Your task to perform on an android device: open a new tab in the chrome app Image 0: 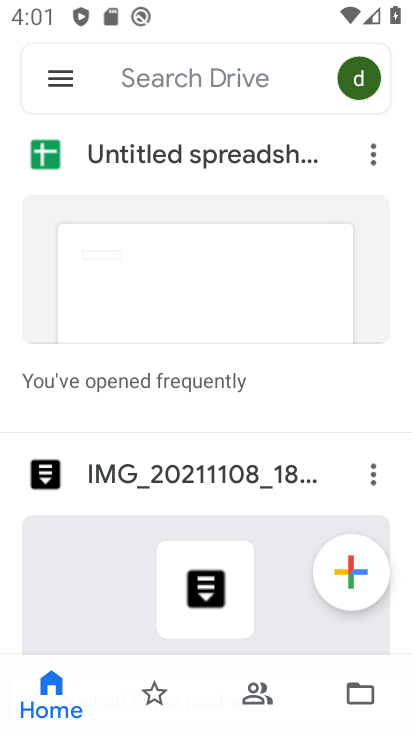
Step 0: press home button
Your task to perform on an android device: open a new tab in the chrome app Image 1: 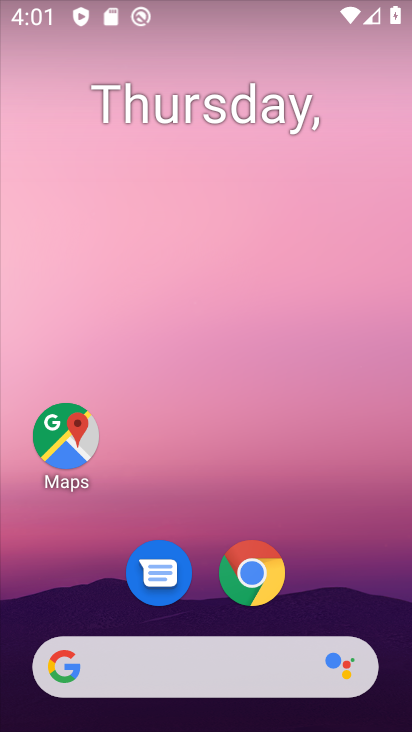
Step 1: click (253, 567)
Your task to perform on an android device: open a new tab in the chrome app Image 2: 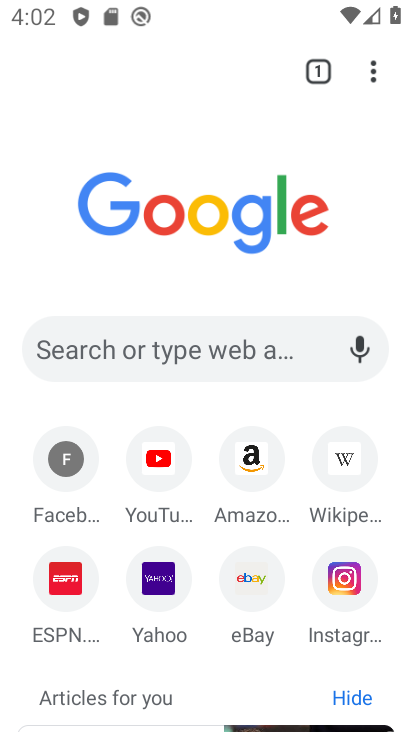
Step 2: click (374, 78)
Your task to perform on an android device: open a new tab in the chrome app Image 3: 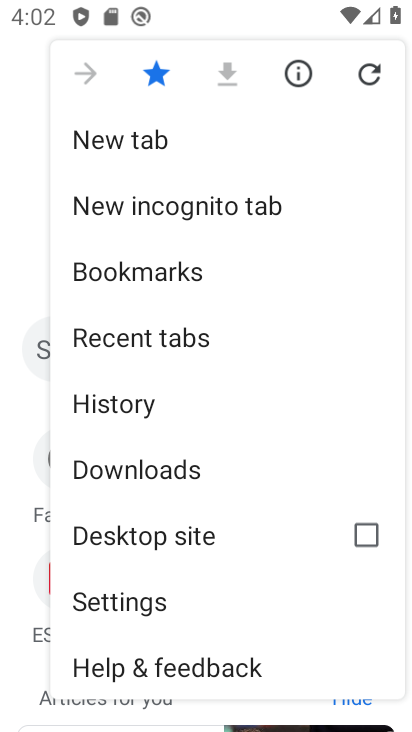
Step 3: click (134, 147)
Your task to perform on an android device: open a new tab in the chrome app Image 4: 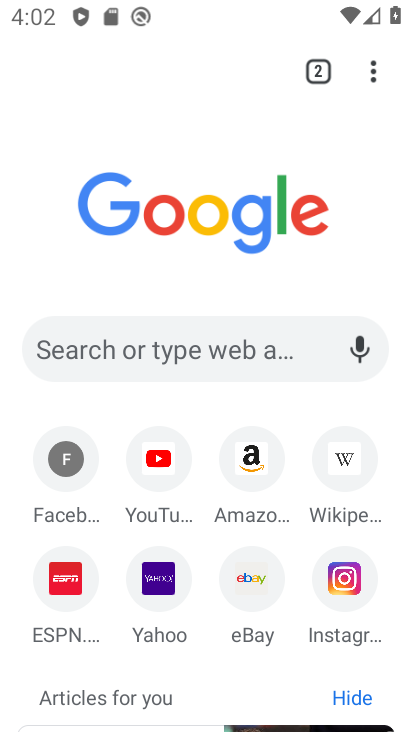
Step 4: task complete